Your task to perform on an android device: Open notification settings Image 0: 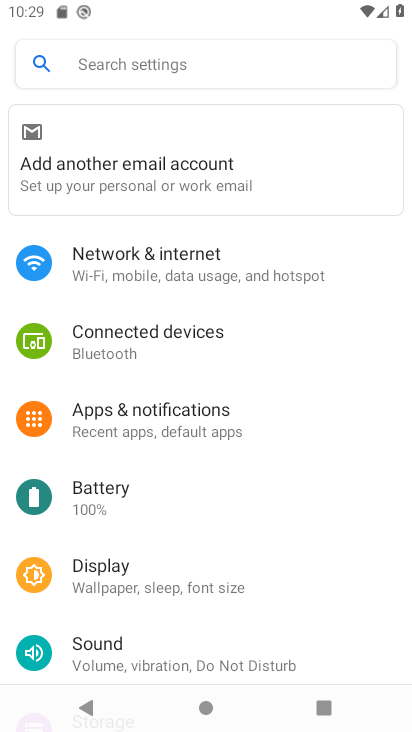
Step 0: press home button
Your task to perform on an android device: Open notification settings Image 1: 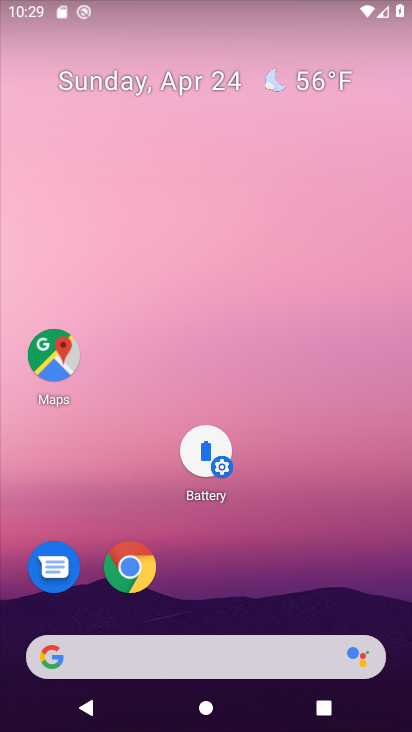
Step 1: drag from (149, 502) to (282, 317)
Your task to perform on an android device: Open notification settings Image 2: 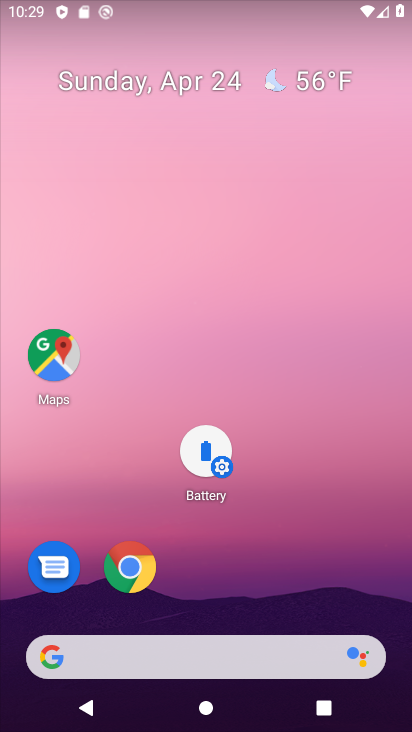
Step 2: drag from (52, 502) to (303, 198)
Your task to perform on an android device: Open notification settings Image 3: 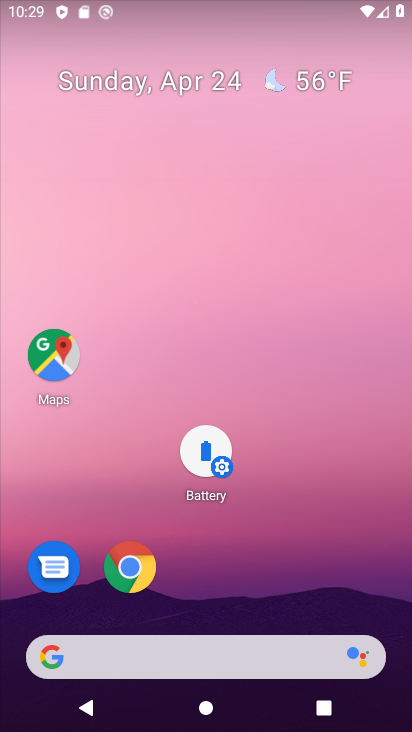
Step 3: drag from (142, 432) to (383, 95)
Your task to perform on an android device: Open notification settings Image 4: 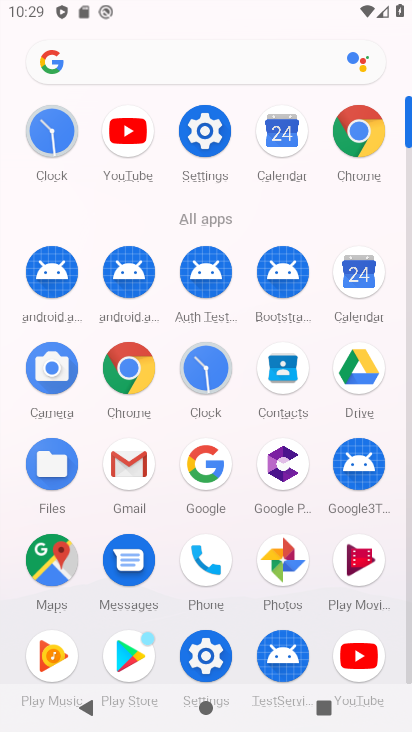
Step 4: click (191, 118)
Your task to perform on an android device: Open notification settings Image 5: 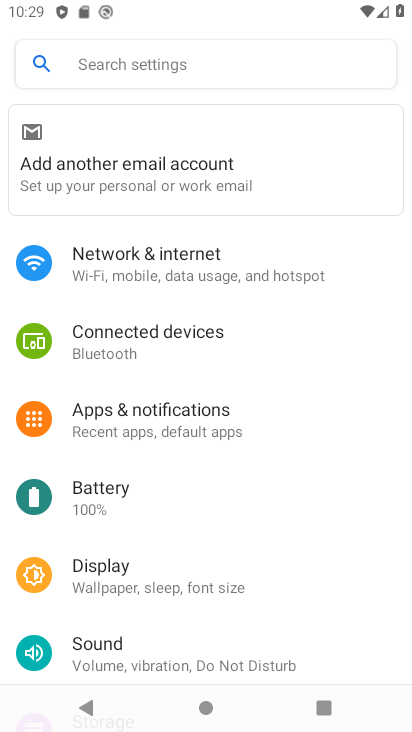
Step 5: click (162, 424)
Your task to perform on an android device: Open notification settings Image 6: 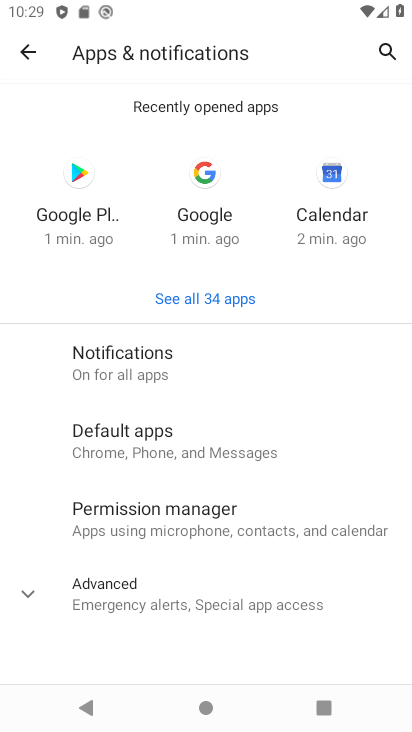
Step 6: click (184, 377)
Your task to perform on an android device: Open notification settings Image 7: 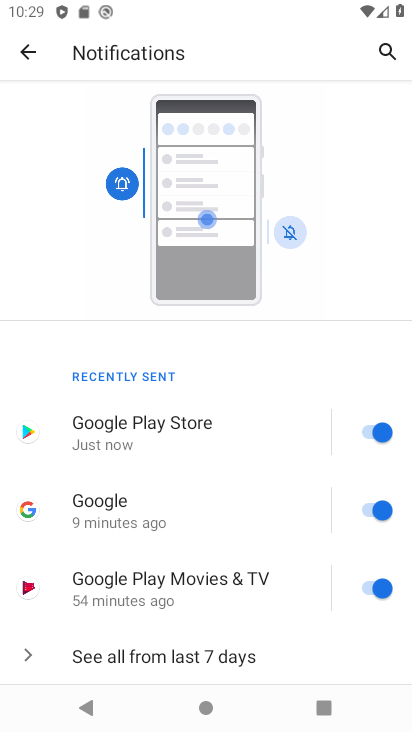
Step 7: task complete